Your task to perform on an android device: Open Google Chrome and click the shortcut for Amazon.com Image 0: 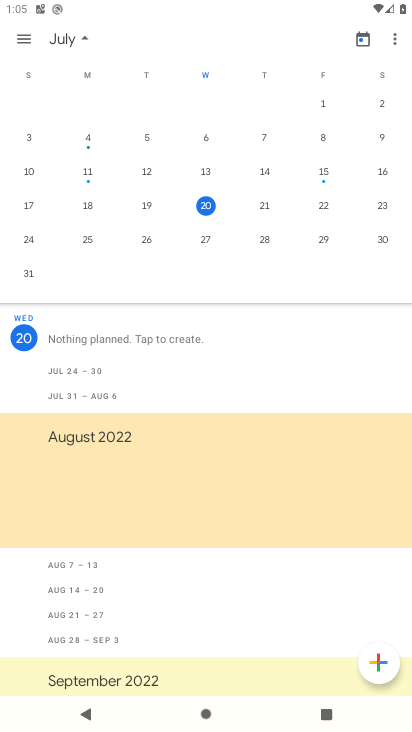
Step 0: press home button
Your task to perform on an android device: Open Google Chrome and click the shortcut for Amazon.com Image 1: 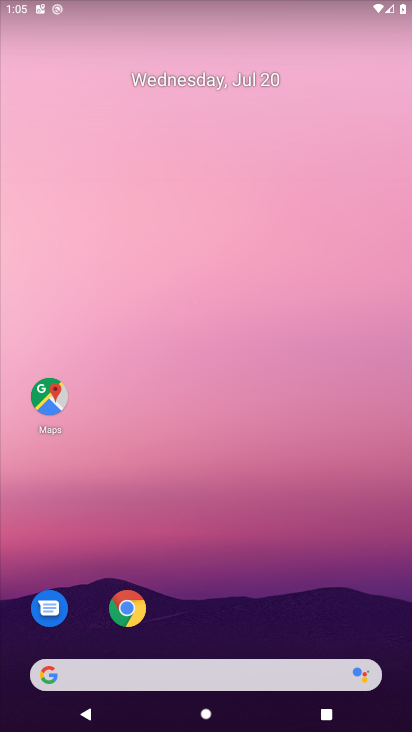
Step 1: click (117, 611)
Your task to perform on an android device: Open Google Chrome and click the shortcut for Amazon.com Image 2: 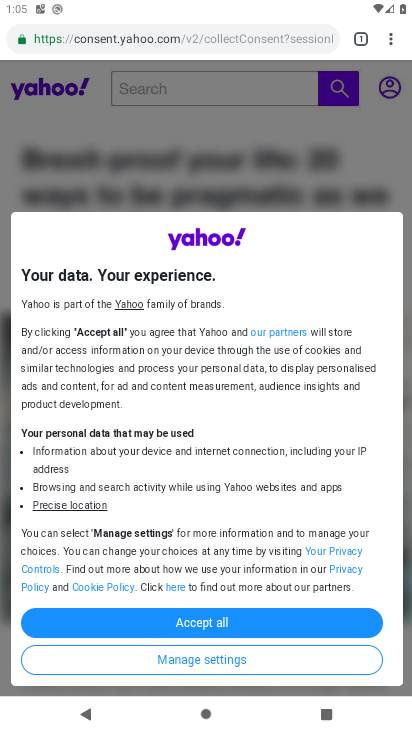
Step 2: click (357, 44)
Your task to perform on an android device: Open Google Chrome and click the shortcut for Amazon.com Image 3: 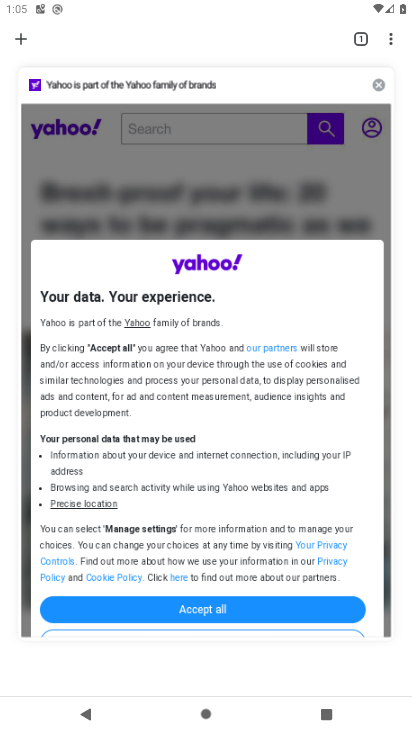
Step 3: click (379, 82)
Your task to perform on an android device: Open Google Chrome and click the shortcut for Amazon.com Image 4: 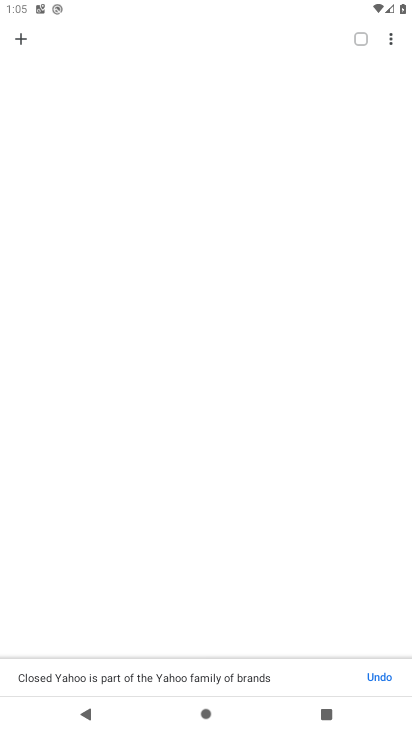
Step 4: click (23, 37)
Your task to perform on an android device: Open Google Chrome and click the shortcut for Amazon.com Image 5: 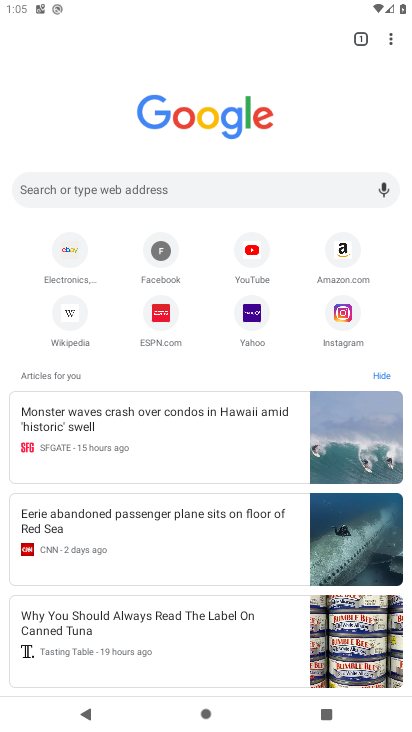
Step 5: click (338, 255)
Your task to perform on an android device: Open Google Chrome and click the shortcut for Amazon.com Image 6: 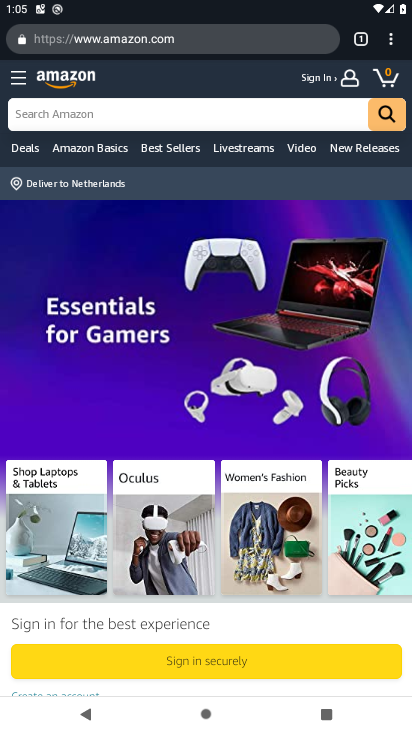
Step 6: task complete